Your task to perform on an android device: allow cookies in the chrome app Image 0: 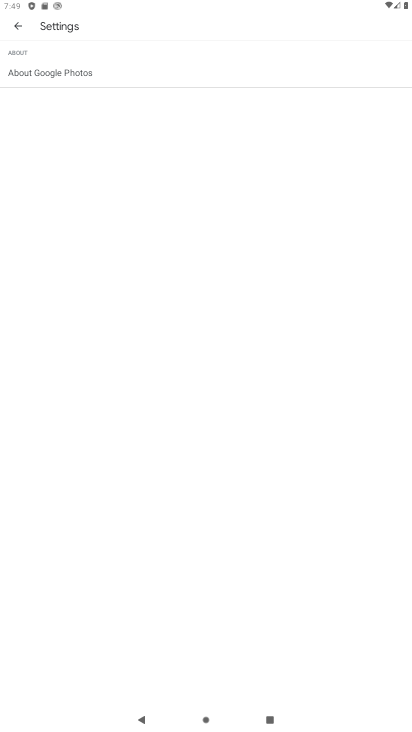
Step 0: drag from (238, 658) to (171, 232)
Your task to perform on an android device: allow cookies in the chrome app Image 1: 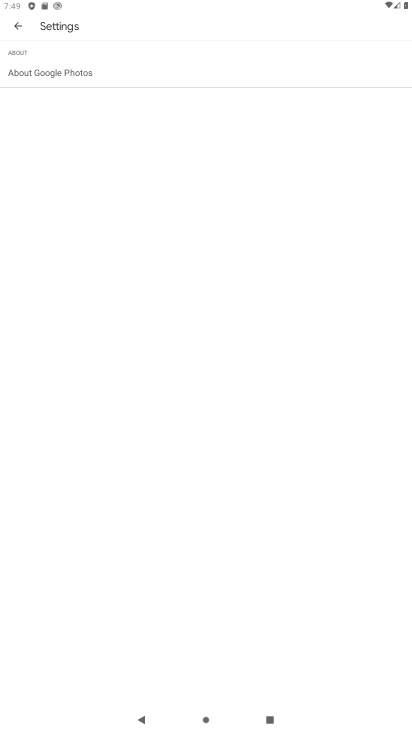
Step 1: press home button
Your task to perform on an android device: allow cookies in the chrome app Image 2: 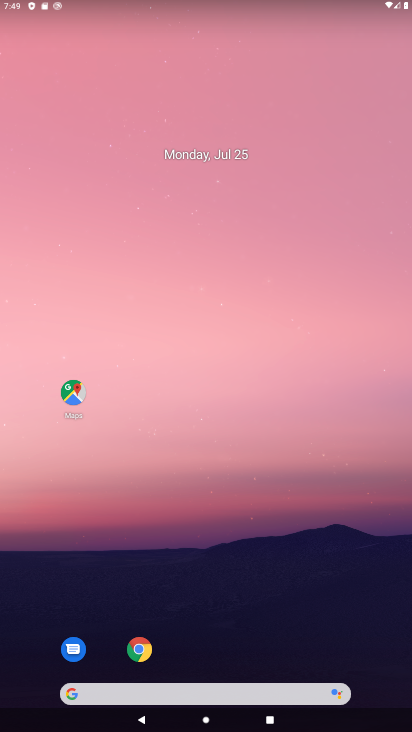
Step 2: click (133, 652)
Your task to perform on an android device: allow cookies in the chrome app Image 3: 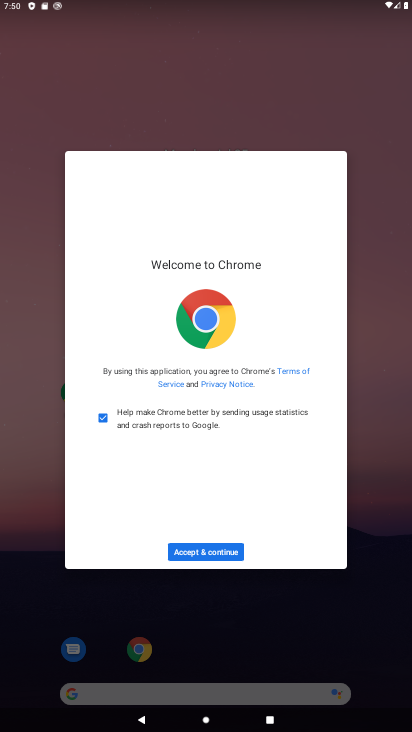
Step 3: click (209, 543)
Your task to perform on an android device: allow cookies in the chrome app Image 4: 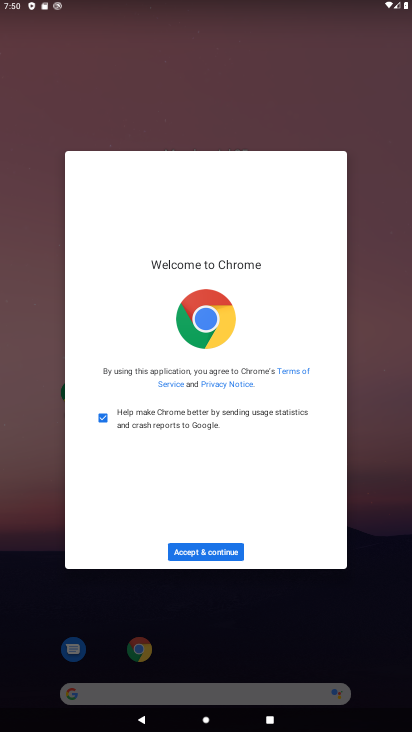
Step 4: click (225, 548)
Your task to perform on an android device: allow cookies in the chrome app Image 5: 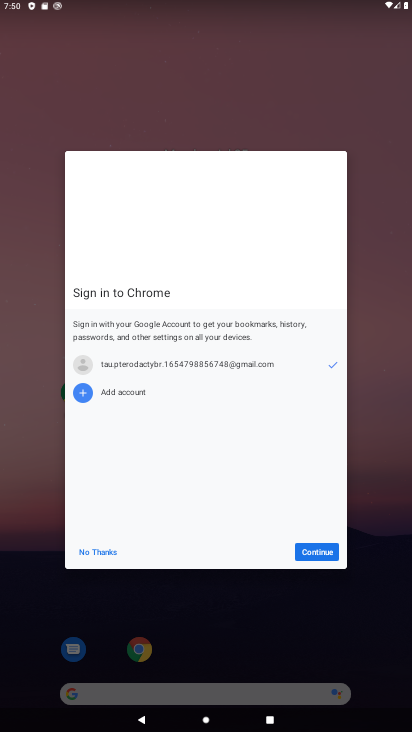
Step 5: click (312, 555)
Your task to perform on an android device: allow cookies in the chrome app Image 6: 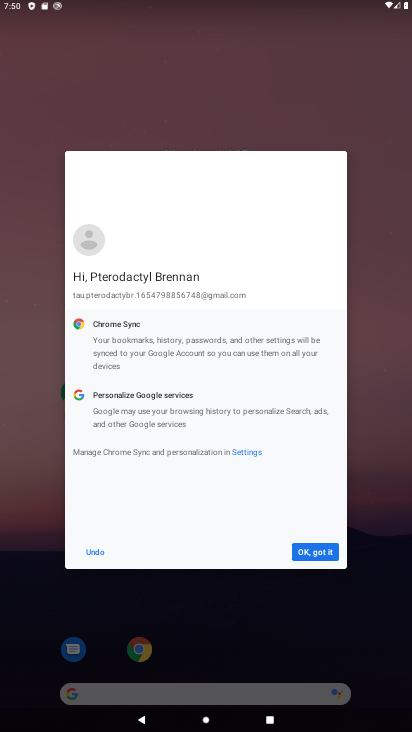
Step 6: click (312, 550)
Your task to perform on an android device: allow cookies in the chrome app Image 7: 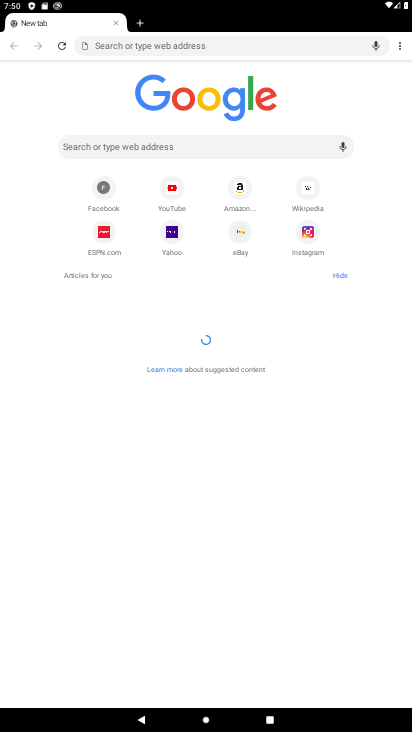
Step 7: click (404, 53)
Your task to perform on an android device: allow cookies in the chrome app Image 8: 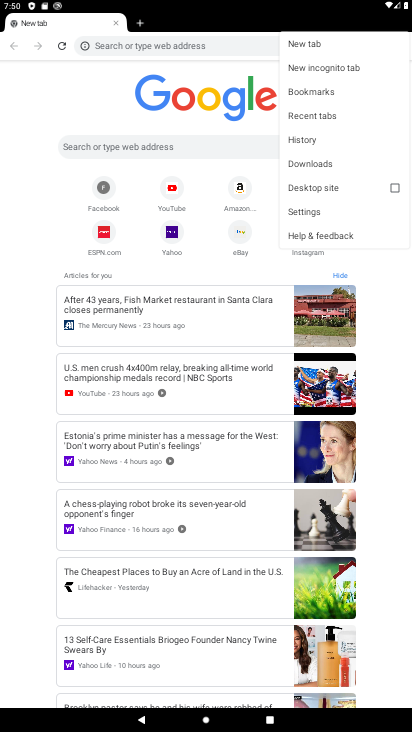
Step 8: click (339, 209)
Your task to perform on an android device: allow cookies in the chrome app Image 9: 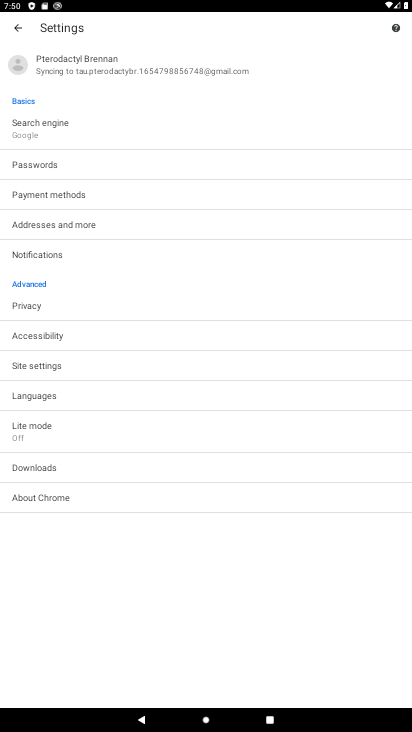
Step 9: click (79, 376)
Your task to perform on an android device: allow cookies in the chrome app Image 10: 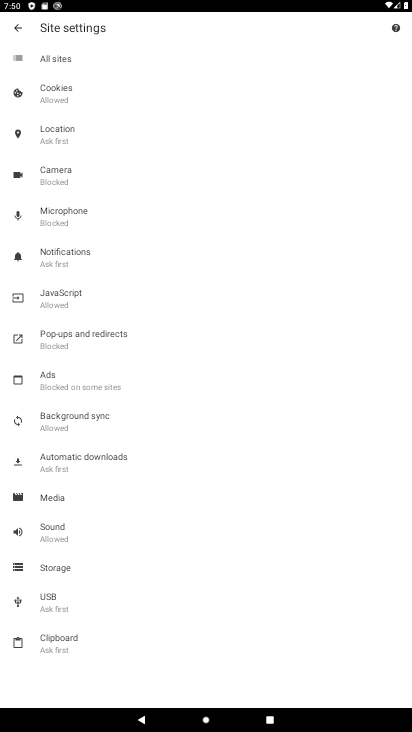
Step 10: click (72, 98)
Your task to perform on an android device: allow cookies in the chrome app Image 11: 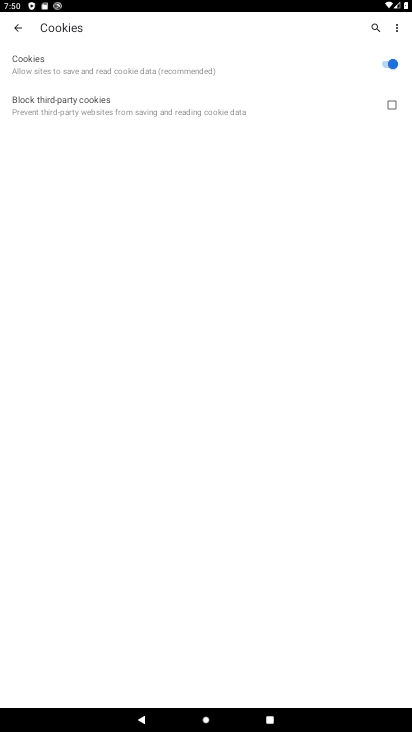
Step 11: task complete